Your task to perform on an android device: Go to location settings Image 0: 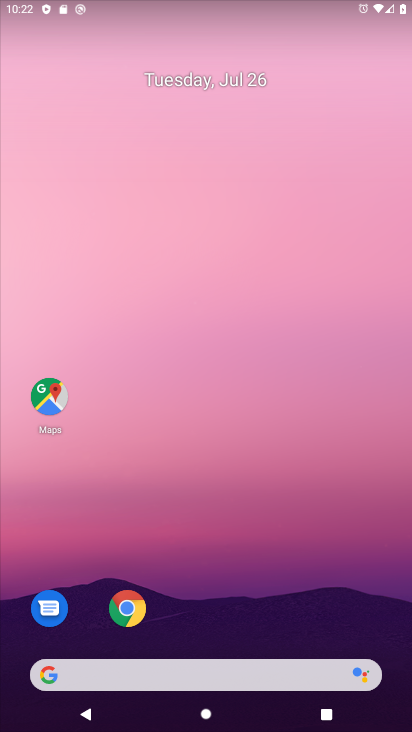
Step 0: drag from (236, 685) to (244, 158)
Your task to perform on an android device: Go to location settings Image 1: 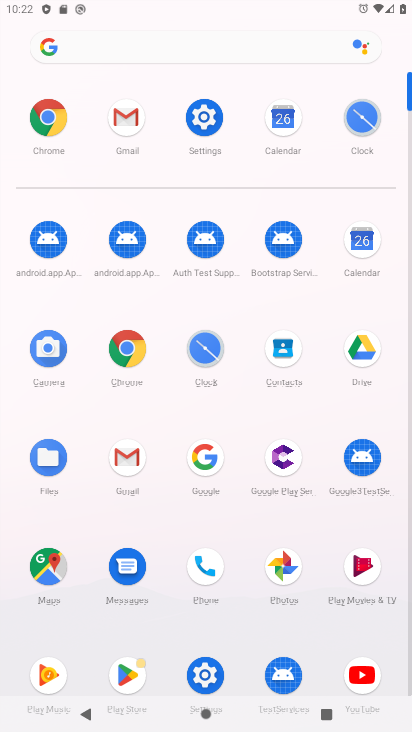
Step 1: click (206, 125)
Your task to perform on an android device: Go to location settings Image 2: 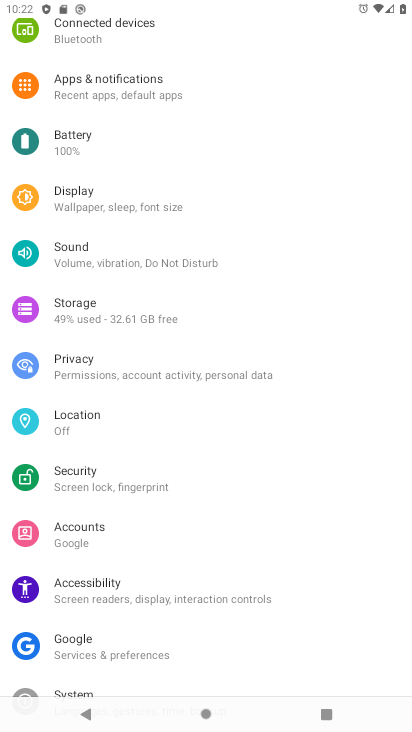
Step 2: click (72, 415)
Your task to perform on an android device: Go to location settings Image 3: 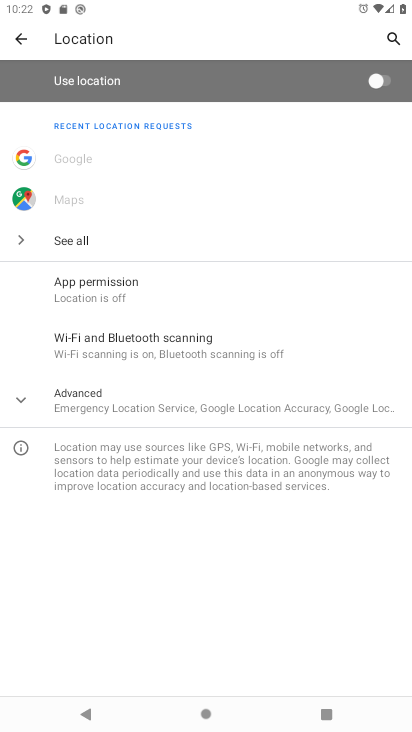
Step 3: task complete